Your task to perform on an android device: allow cookies in the chrome app Image 0: 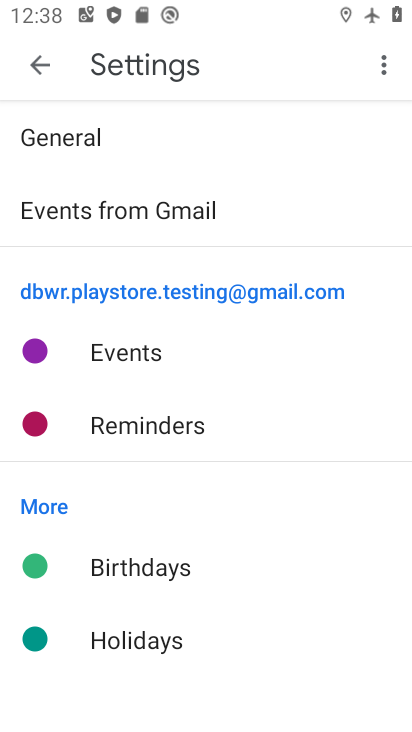
Step 0: press home button
Your task to perform on an android device: allow cookies in the chrome app Image 1: 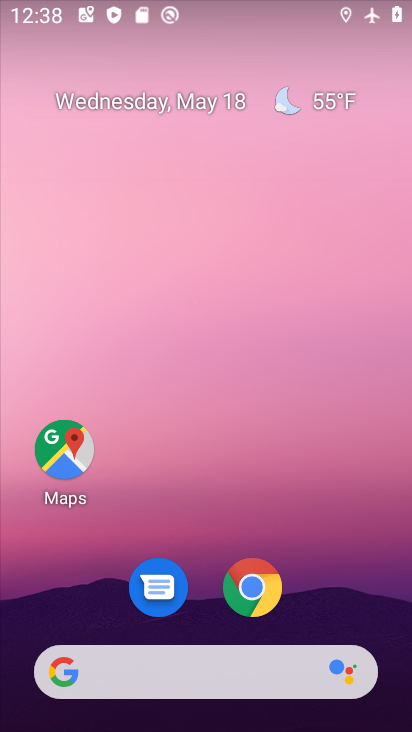
Step 1: click (253, 586)
Your task to perform on an android device: allow cookies in the chrome app Image 2: 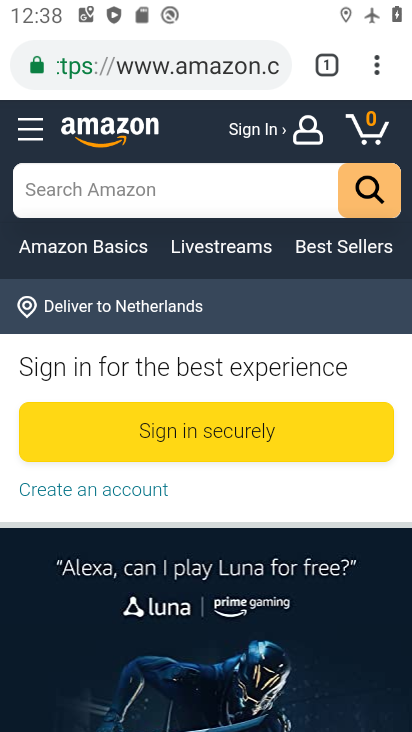
Step 2: click (377, 71)
Your task to perform on an android device: allow cookies in the chrome app Image 3: 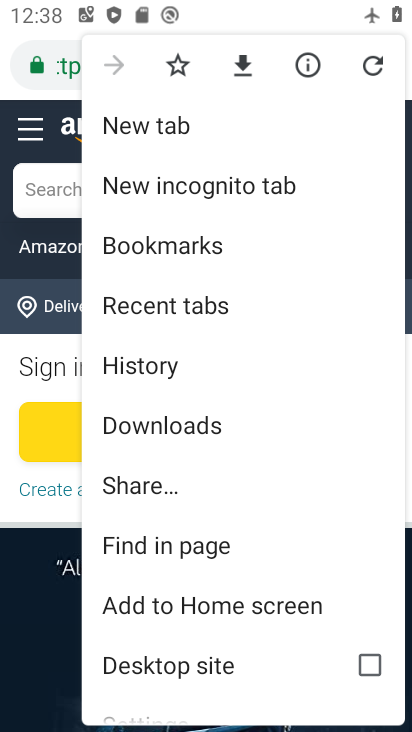
Step 3: drag from (235, 604) to (274, 259)
Your task to perform on an android device: allow cookies in the chrome app Image 4: 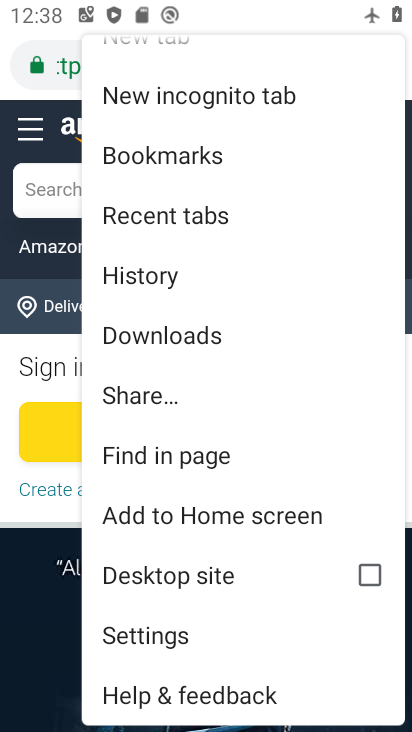
Step 4: click (155, 632)
Your task to perform on an android device: allow cookies in the chrome app Image 5: 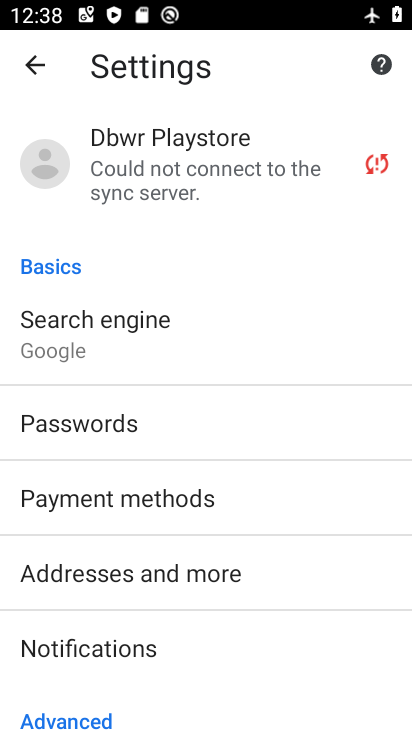
Step 5: drag from (197, 639) to (167, 393)
Your task to perform on an android device: allow cookies in the chrome app Image 6: 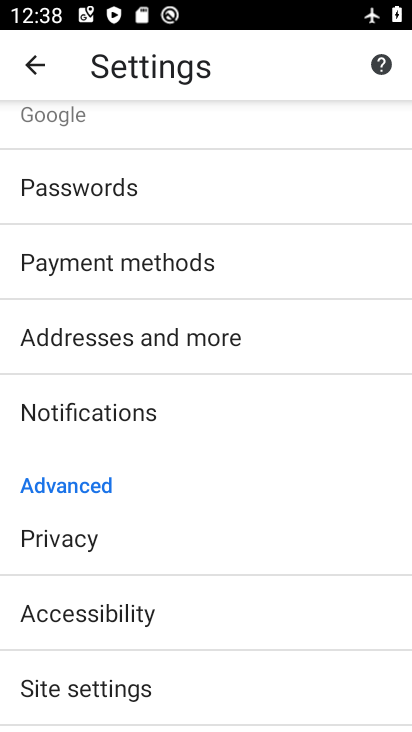
Step 6: drag from (232, 615) to (233, 313)
Your task to perform on an android device: allow cookies in the chrome app Image 7: 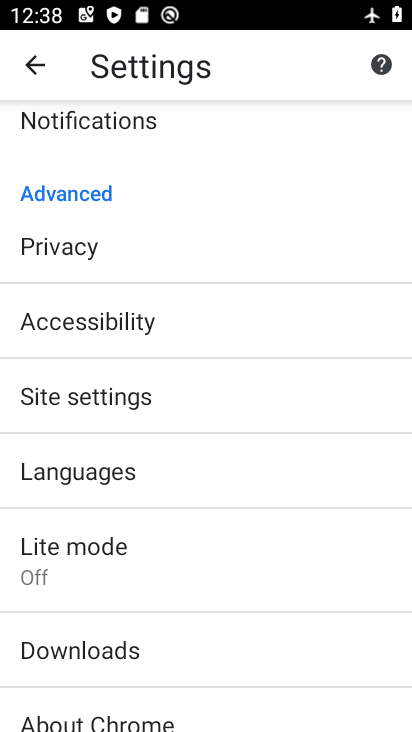
Step 7: click (82, 402)
Your task to perform on an android device: allow cookies in the chrome app Image 8: 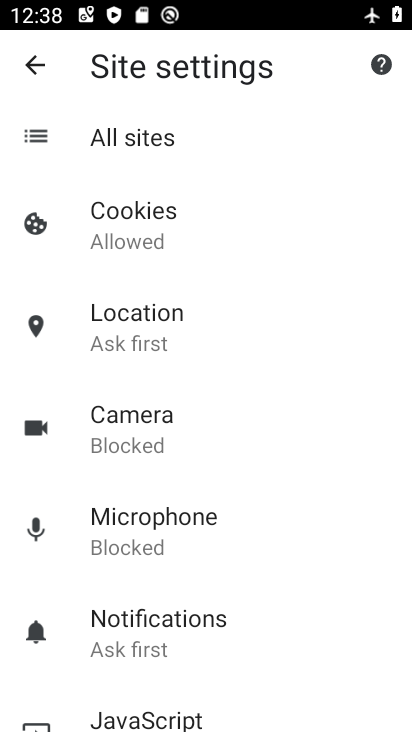
Step 8: drag from (227, 641) to (207, 354)
Your task to perform on an android device: allow cookies in the chrome app Image 9: 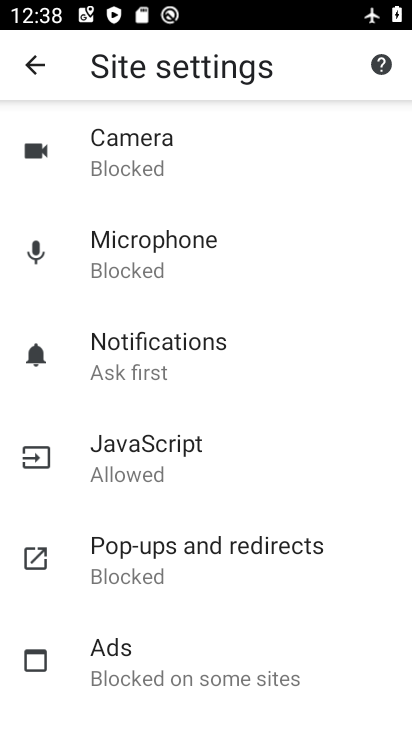
Step 9: click (179, 558)
Your task to perform on an android device: allow cookies in the chrome app Image 10: 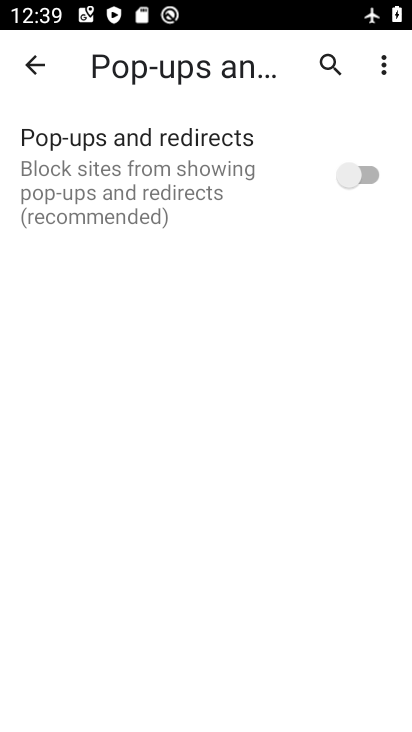
Step 10: click (376, 170)
Your task to perform on an android device: allow cookies in the chrome app Image 11: 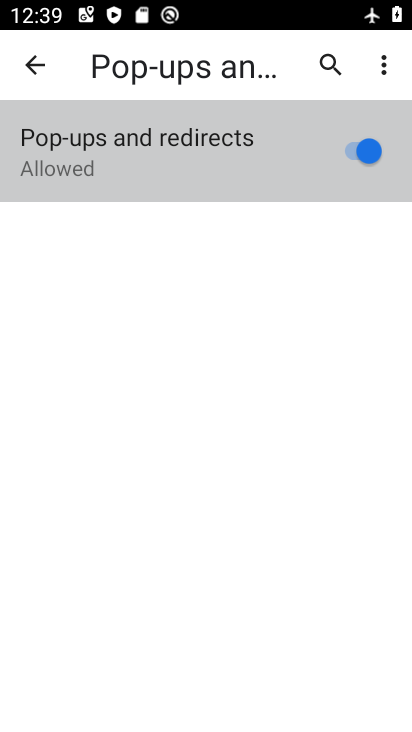
Step 11: click (374, 184)
Your task to perform on an android device: allow cookies in the chrome app Image 12: 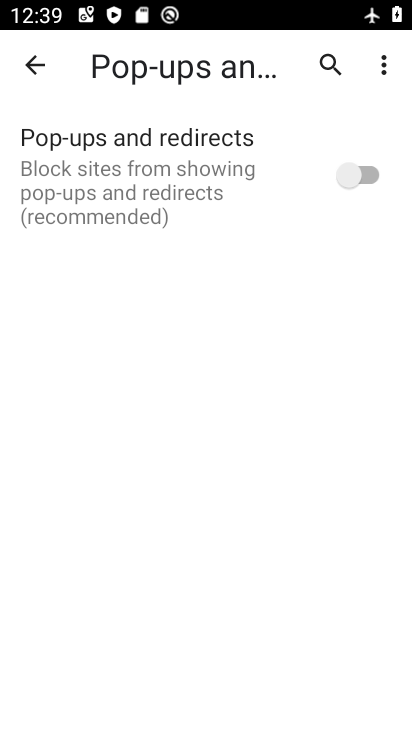
Step 12: task complete